Your task to perform on an android device: Go to battery settings Image 0: 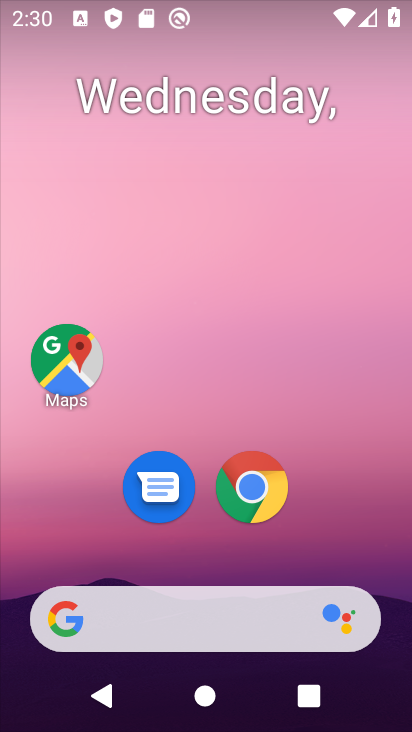
Step 0: drag from (185, 586) to (239, 176)
Your task to perform on an android device: Go to battery settings Image 1: 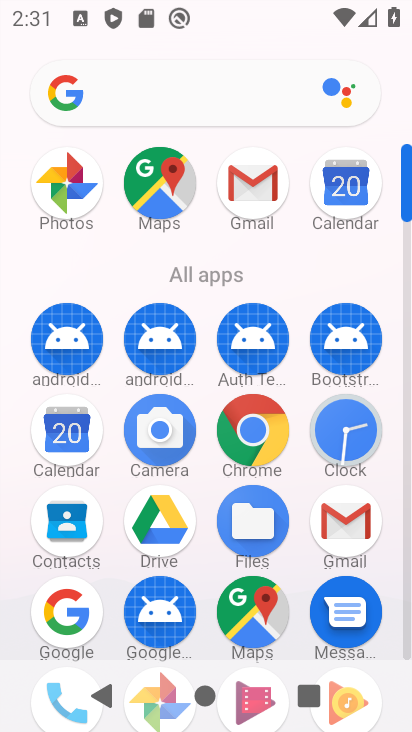
Step 1: drag from (207, 621) to (212, 324)
Your task to perform on an android device: Go to battery settings Image 2: 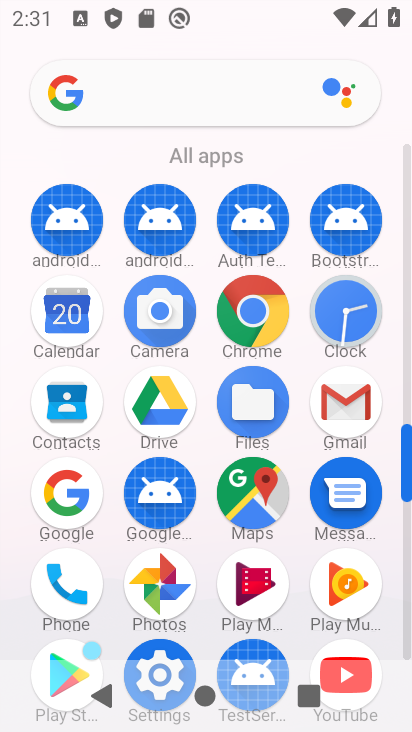
Step 2: drag from (210, 594) to (209, 343)
Your task to perform on an android device: Go to battery settings Image 3: 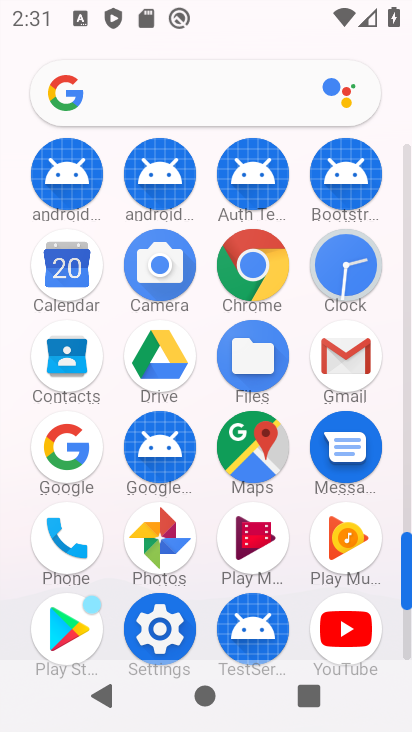
Step 3: click (168, 628)
Your task to perform on an android device: Go to battery settings Image 4: 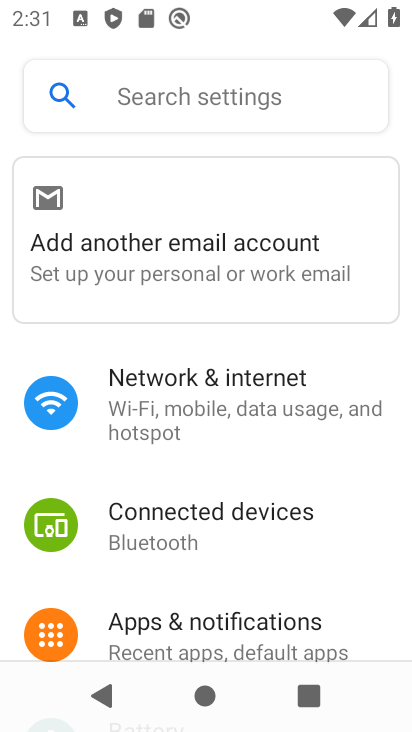
Step 4: drag from (219, 638) to (258, 363)
Your task to perform on an android device: Go to battery settings Image 5: 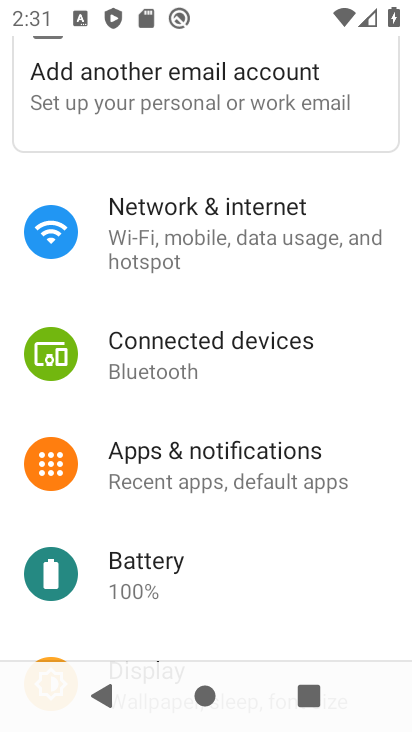
Step 5: click (151, 576)
Your task to perform on an android device: Go to battery settings Image 6: 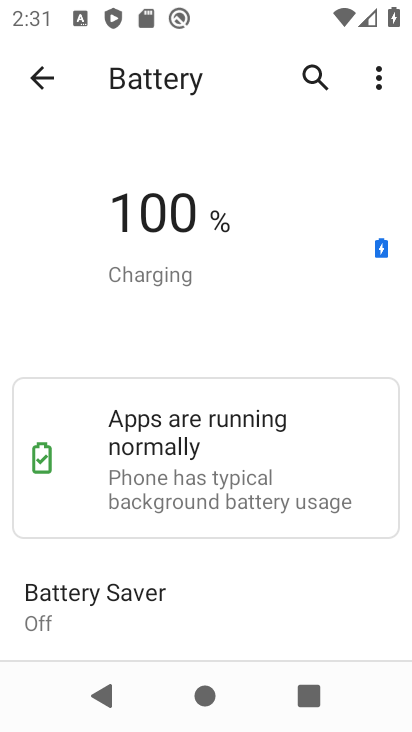
Step 6: click (381, 76)
Your task to perform on an android device: Go to battery settings Image 7: 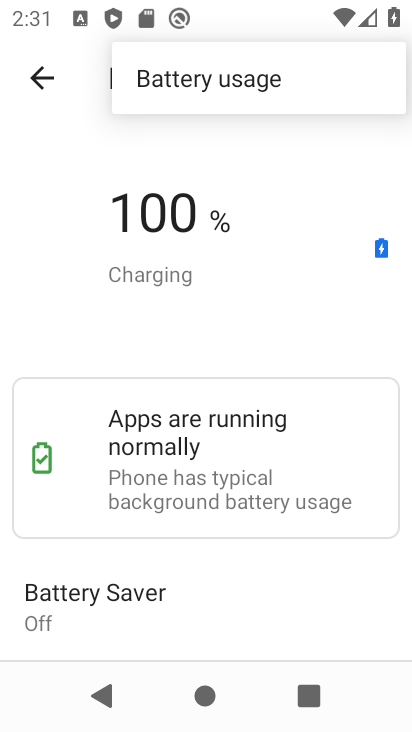
Step 7: click (324, 248)
Your task to perform on an android device: Go to battery settings Image 8: 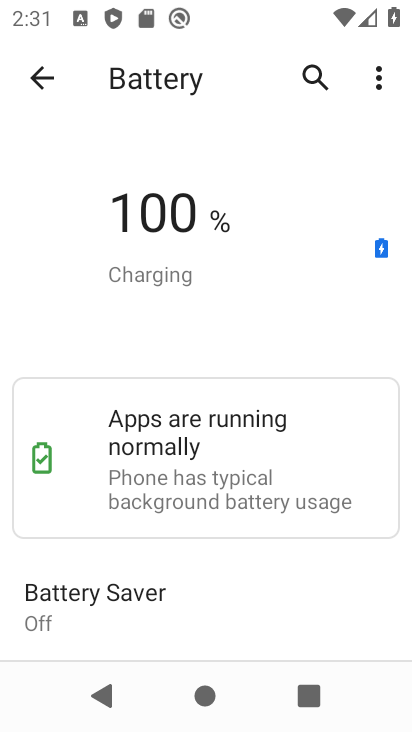
Step 8: task complete